Your task to perform on an android device: delete browsing data in the chrome app Image 0: 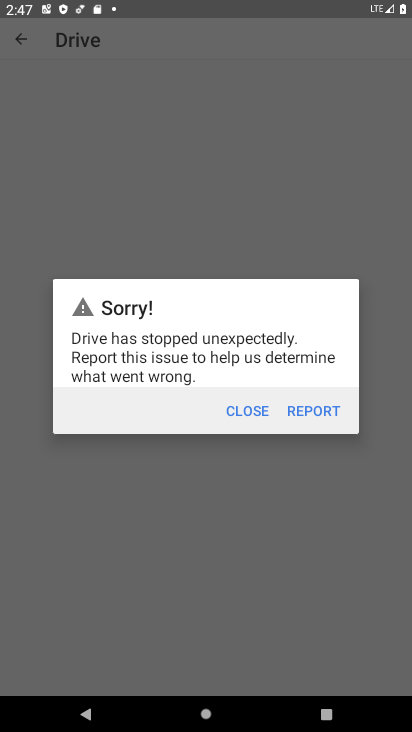
Step 0: press home button
Your task to perform on an android device: delete browsing data in the chrome app Image 1: 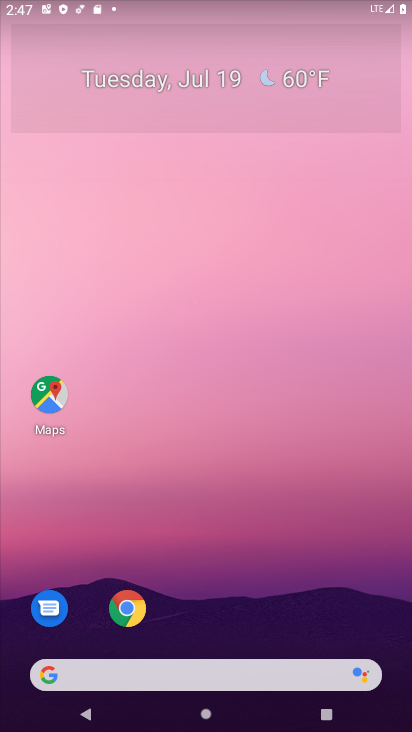
Step 1: drag from (272, 539) to (223, 88)
Your task to perform on an android device: delete browsing data in the chrome app Image 2: 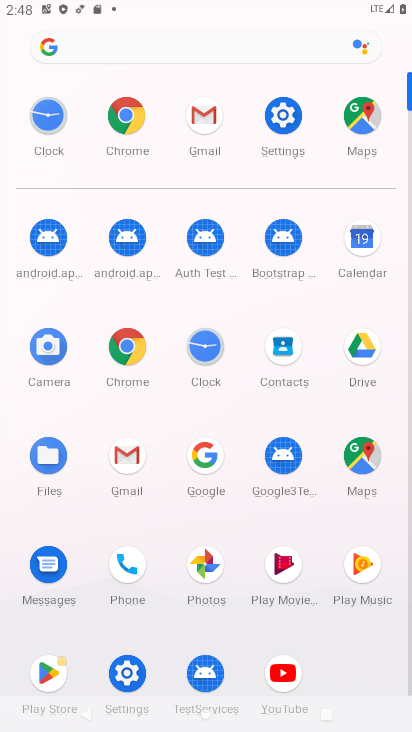
Step 2: click (121, 117)
Your task to perform on an android device: delete browsing data in the chrome app Image 3: 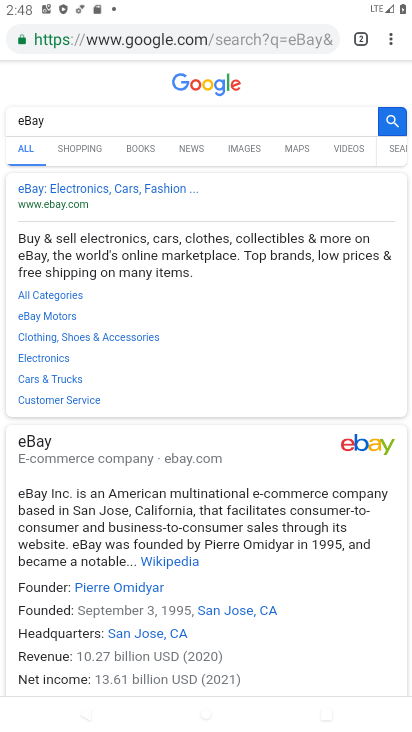
Step 3: drag from (394, 40) to (270, 236)
Your task to perform on an android device: delete browsing data in the chrome app Image 4: 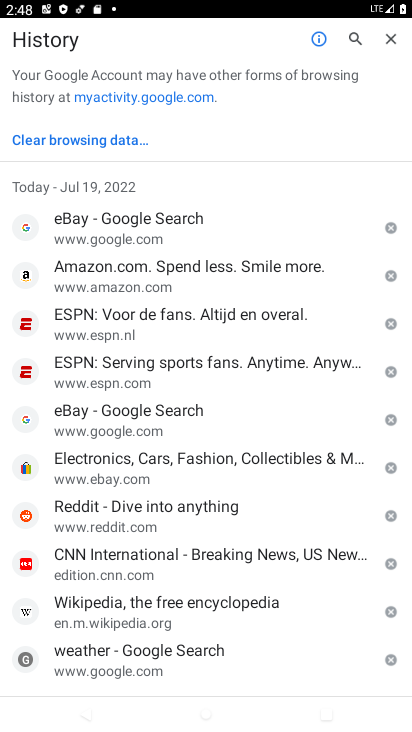
Step 4: click (66, 131)
Your task to perform on an android device: delete browsing data in the chrome app Image 5: 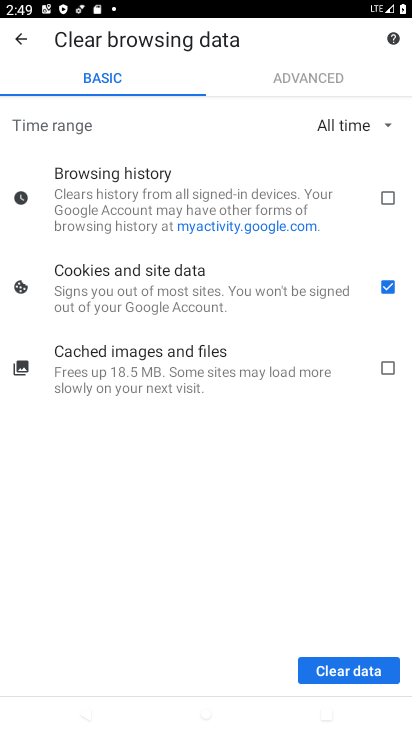
Step 5: click (388, 195)
Your task to perform on an android device: delete browsing data in the chrome app Image 6: 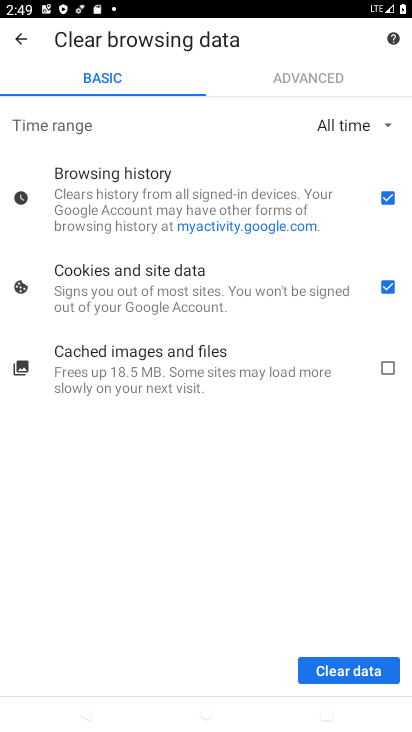
Step 6: click (393, 279)
Your task to perform on an android device: delete browsing data in the chrome app Image 7: 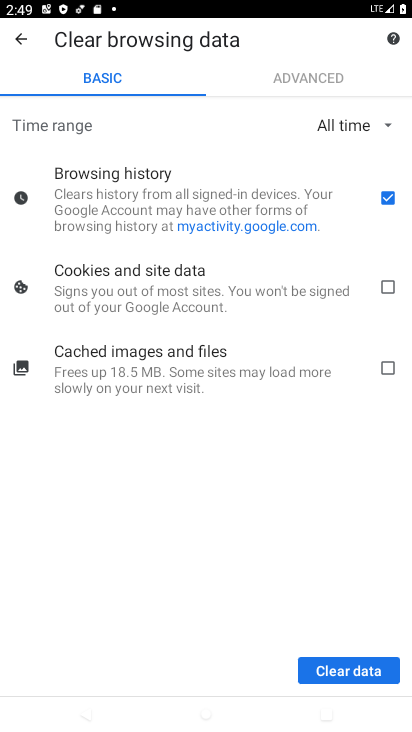
Step 7: click (360, 674)
Your task to perform on an android device: delete browsing data in the chrome app Image 8: 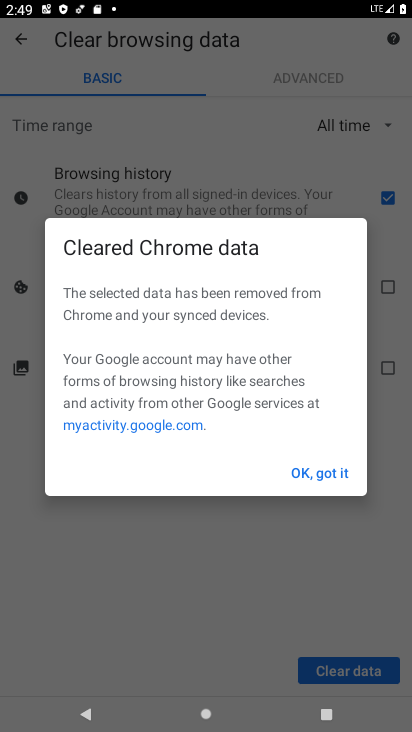
Step 8: click (321, 482)
Your task to perform on an android device: delete browsing data in the chrome app Image 9: 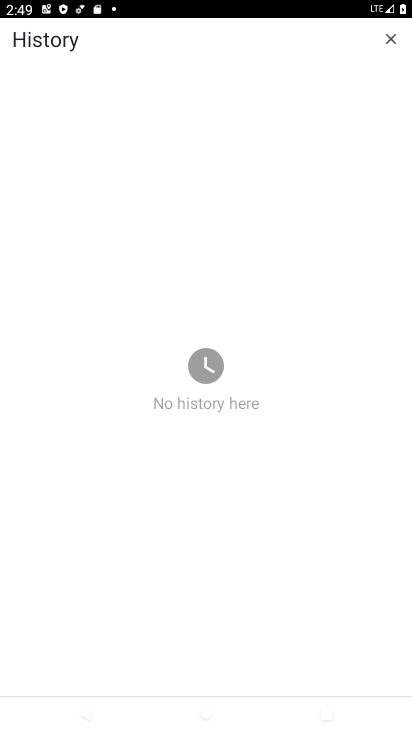
Step 9: task complete